Your task to perform on an android device: uninstall "NewsBreak: Local News & Alerts" Image 0: 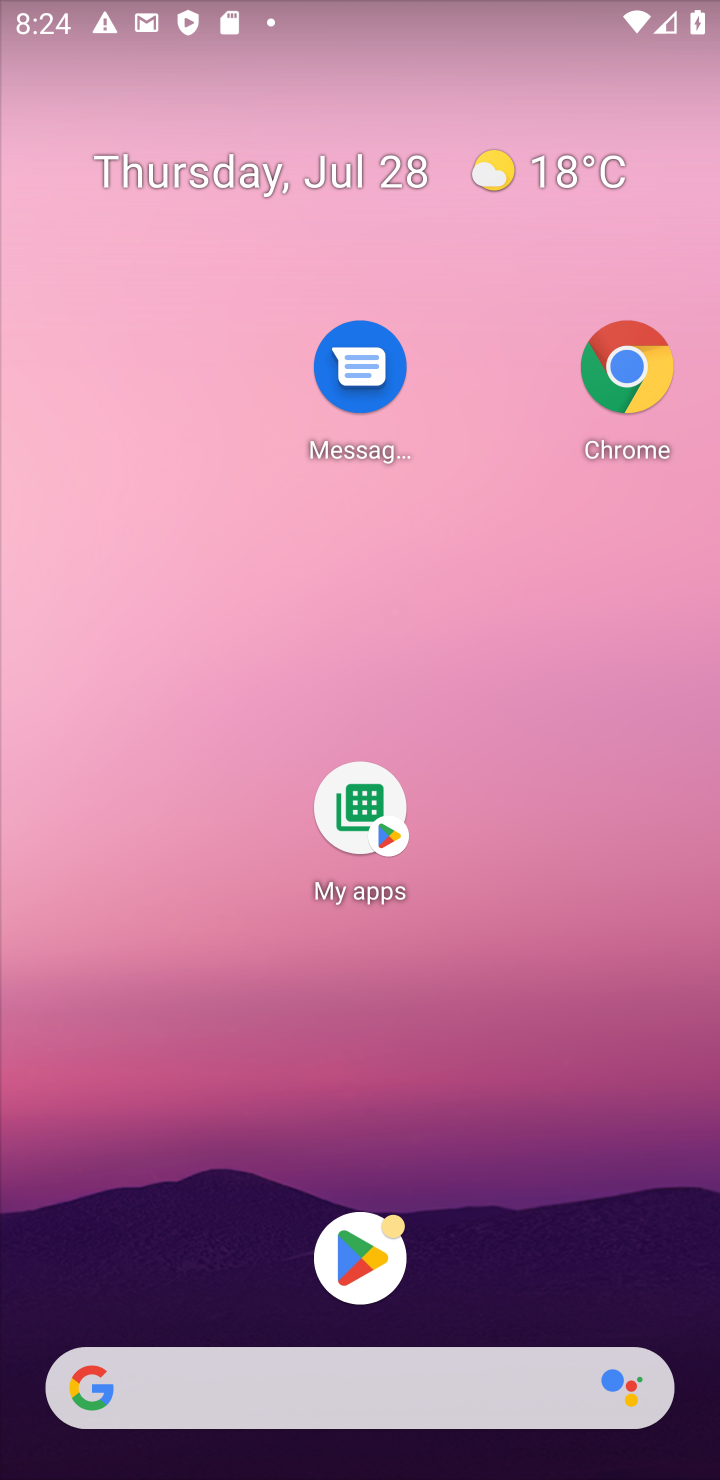
Step 0: drag from (432, 1468) to (629, 181)
Your task to perform on an android device: uninstall "NewsBreak: Local News & Alerts" Image 1: 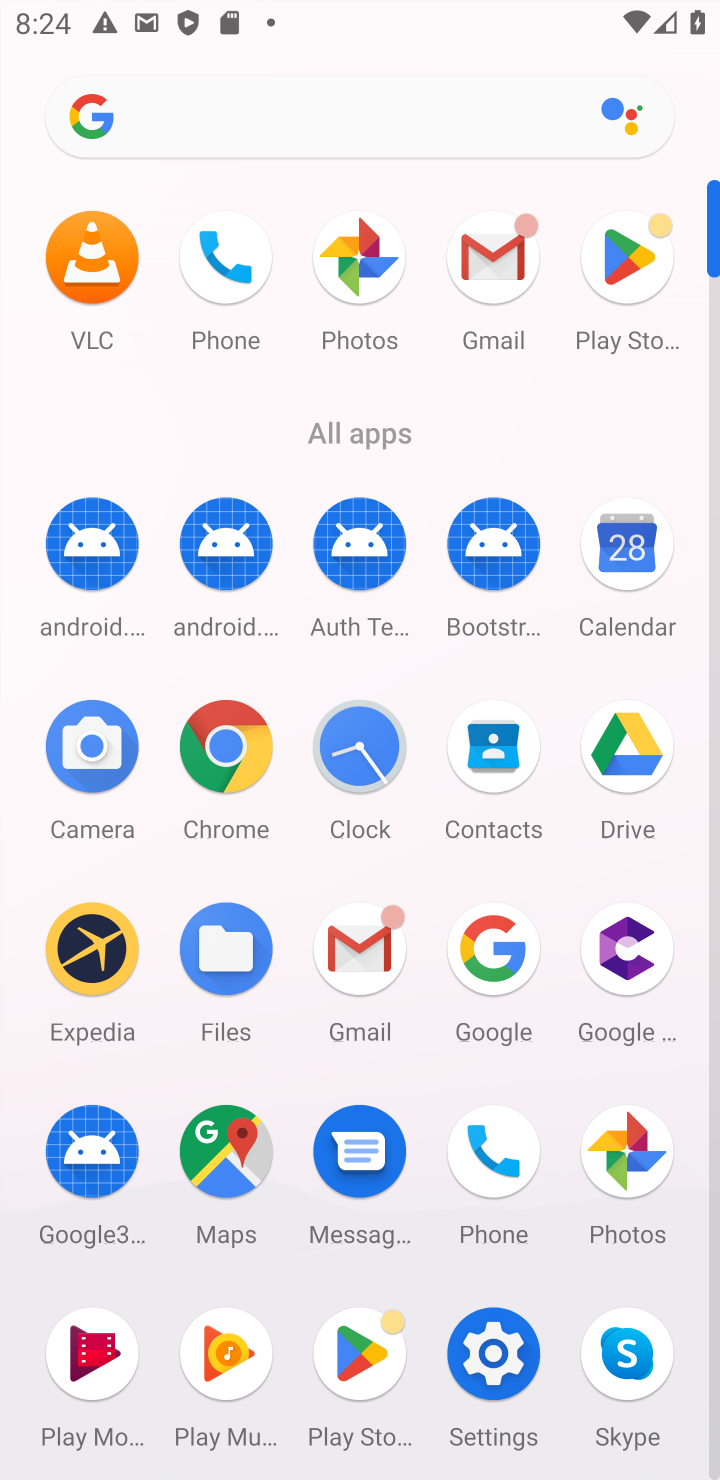
Step 1: click (619, 253)
Your task to perform on an android device: uninstall "NewsBreak: Local News & Alerts" Image 2: 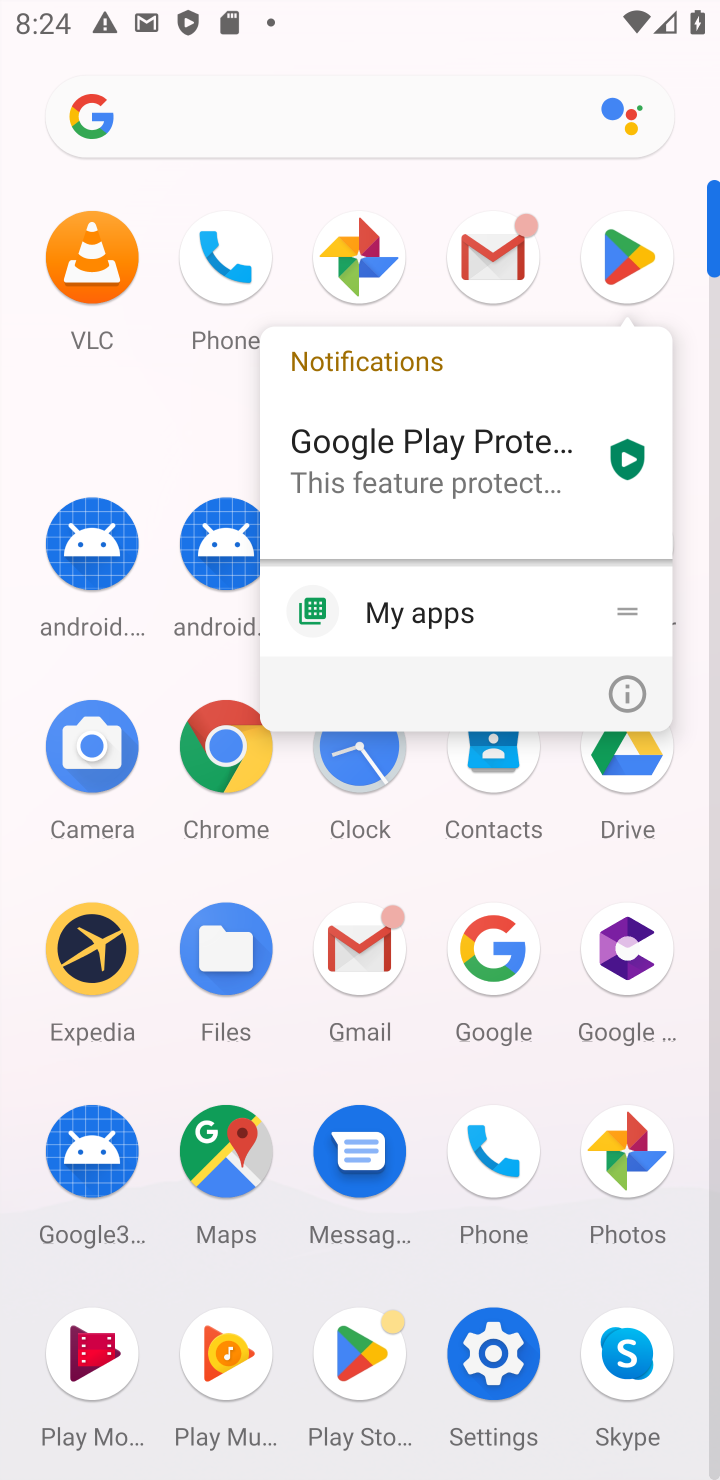
Step 2: click (619, 253)
Your task to perform on an android device: uninstall "NewsBreak: Local News & Alerts" Image 3: 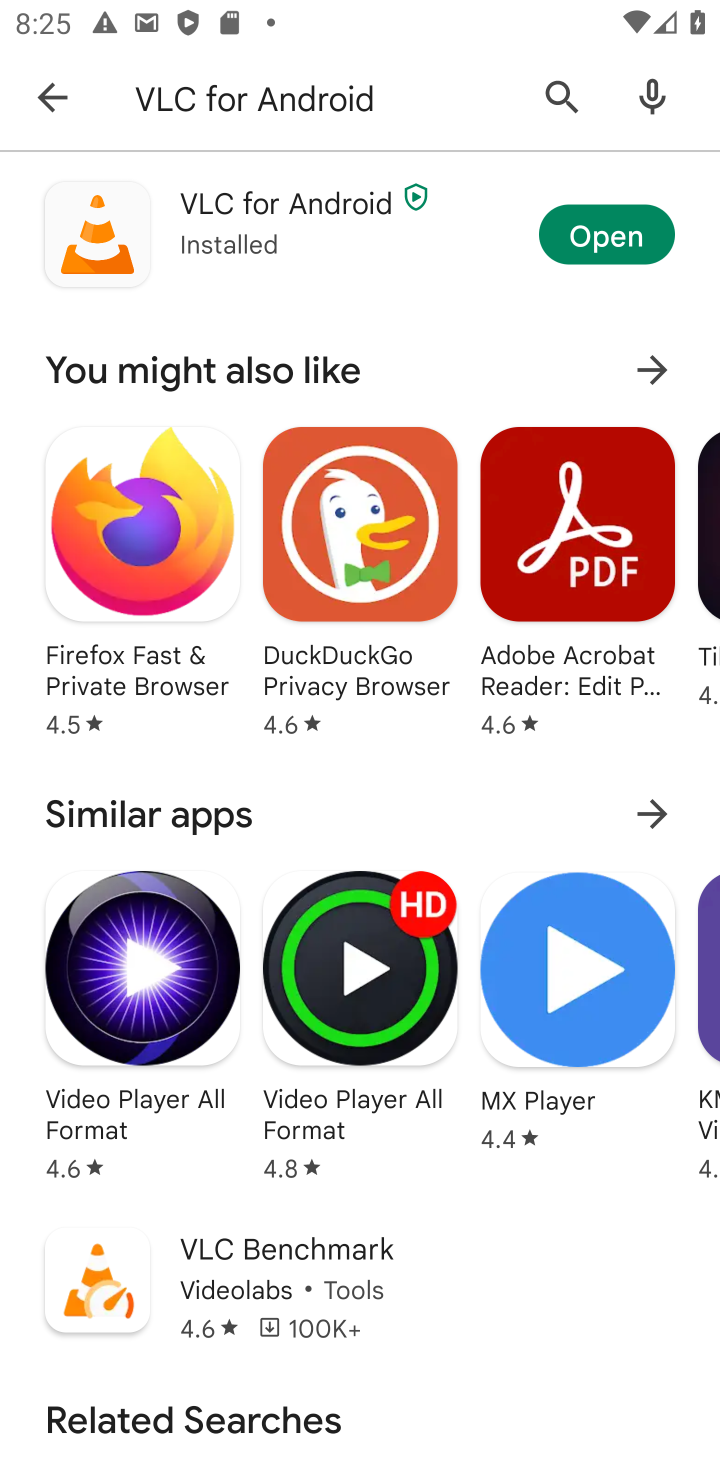
Step 3: click (542, 95)
Your task to perform on an android device: uninstall "NewsBreak: Local News & Alerts" Image 4: 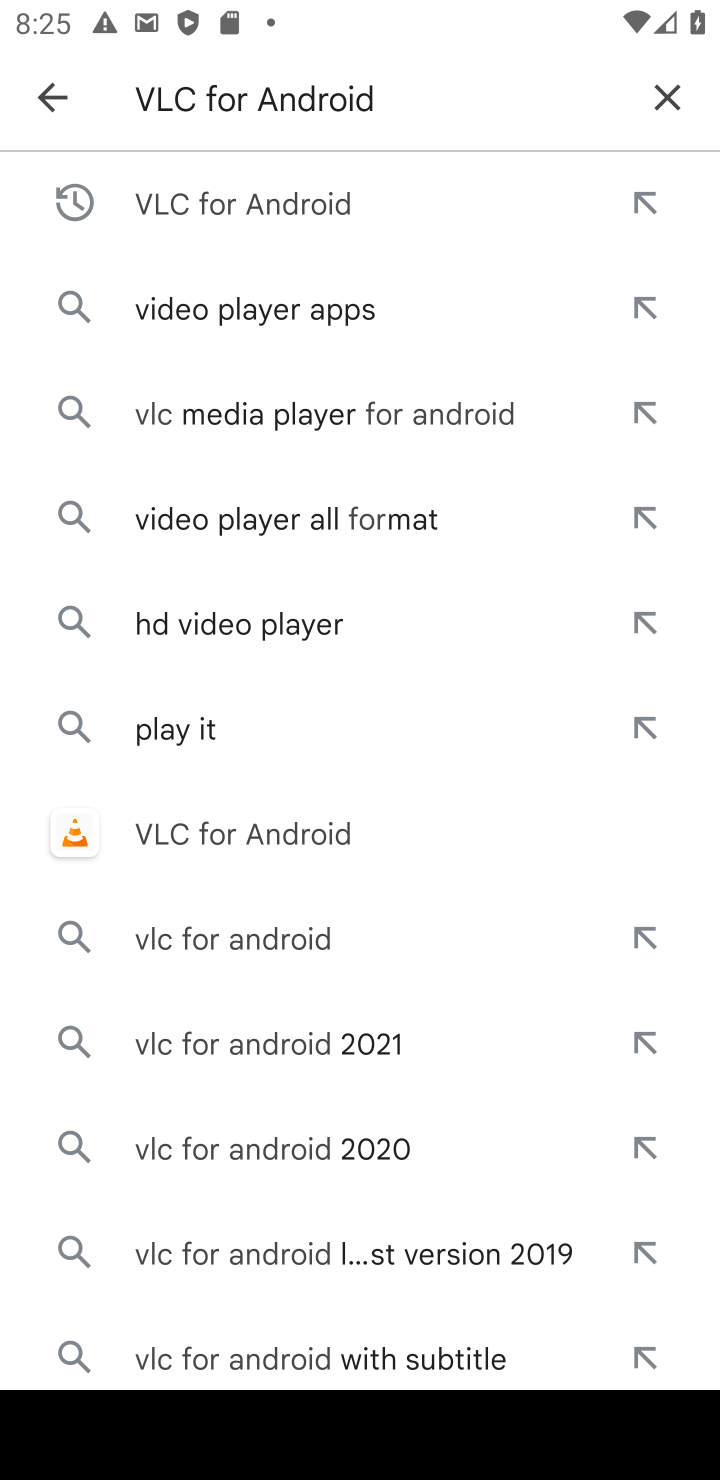
Step 4: click (667, 85)
Your task to perform on an android device: uninstall "NewsBreak: Local News & Alerts" Image 5: 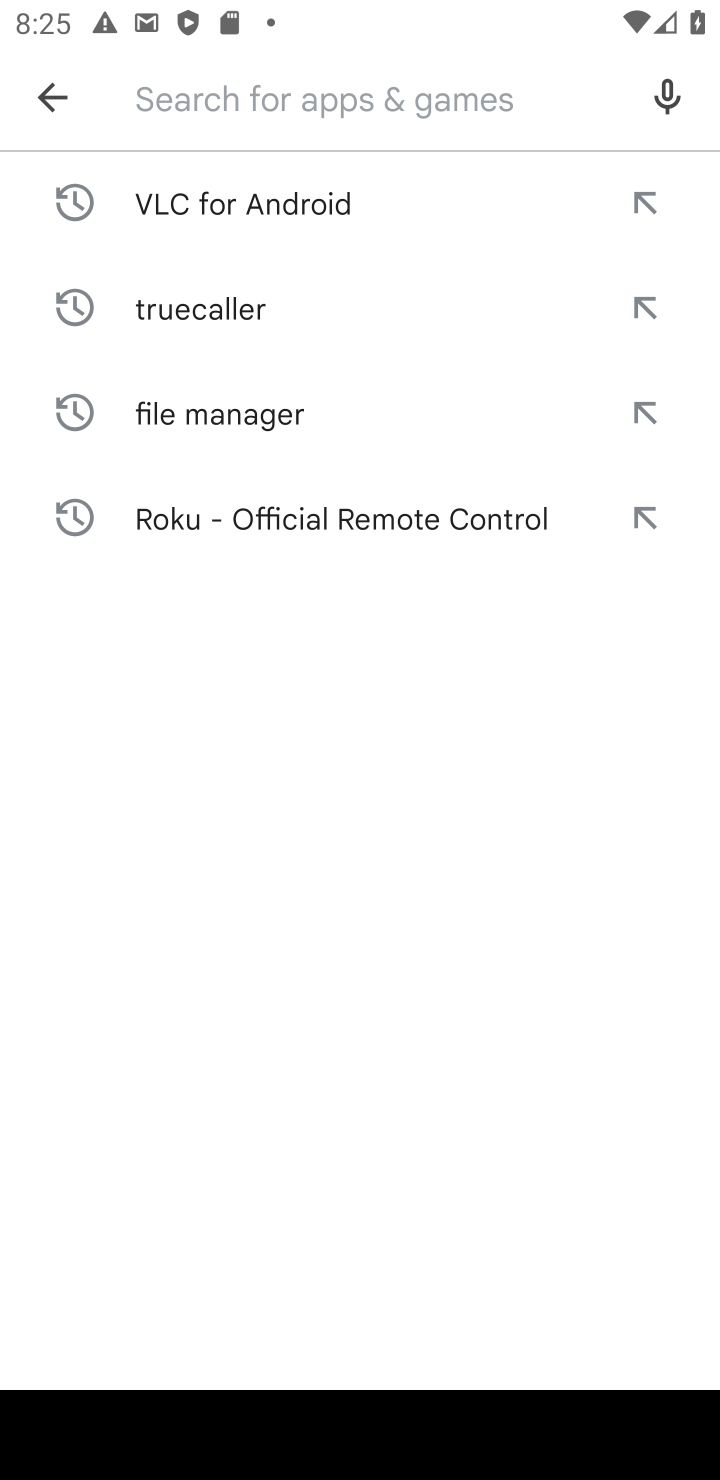
Step 5: type "NewsBreak: Local News & Alerts""
Your task to perform on an android device: uninstall "NewsBreak: Local News & Alerts" Image 6: 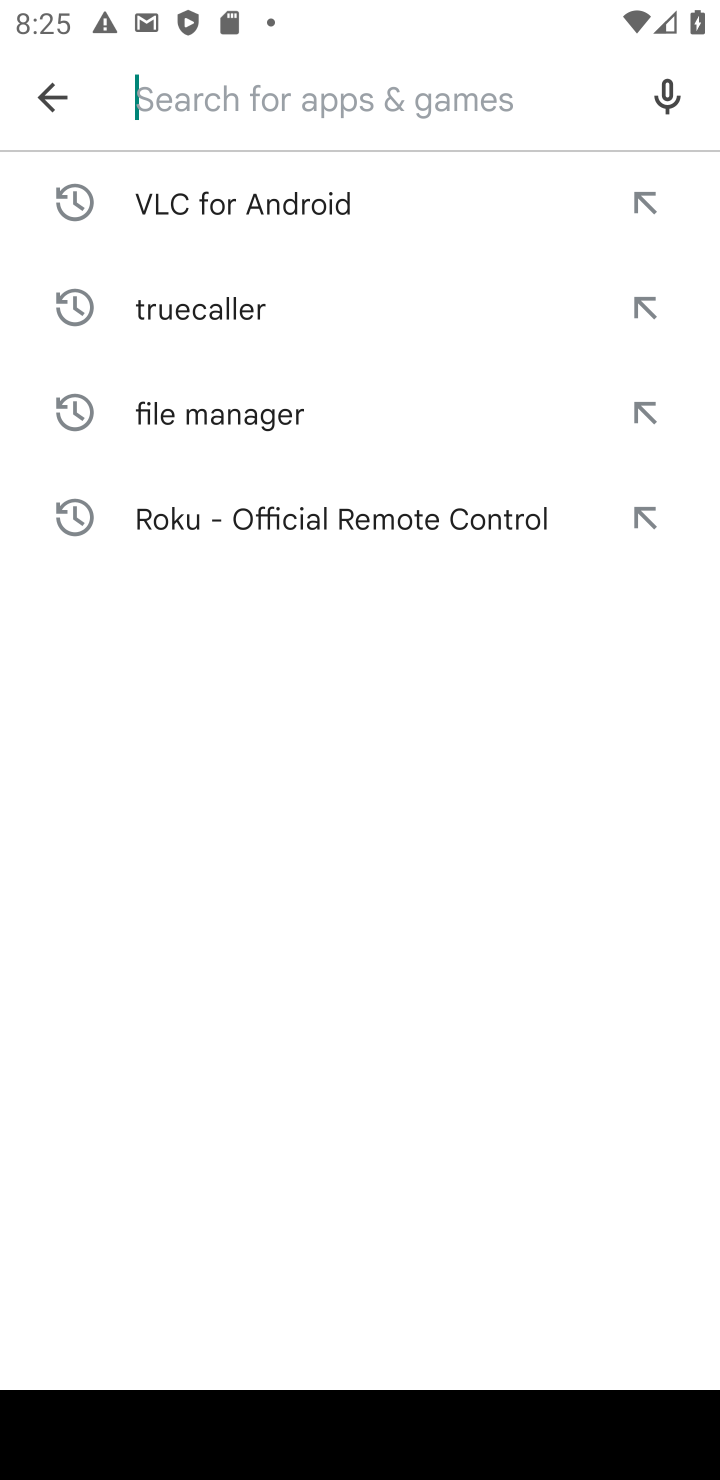
Step 6: press enter
Your task to perform on an android device: uninstall "NewsBreak: Local News & Alerts" Image 7: 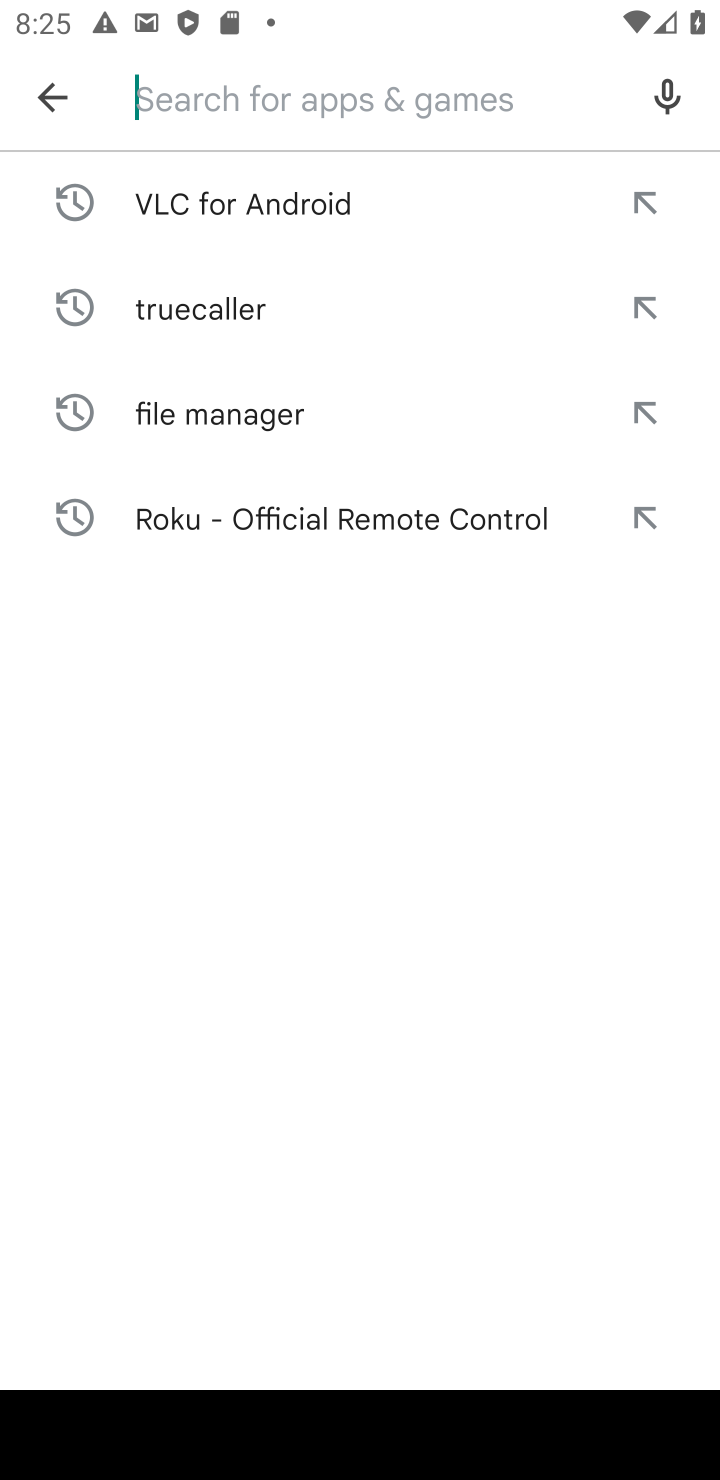
Step 7: type "NewsBreak: Local News & Alerts""
Your task to perform on an android device: uninstall "NewsBreak: Local News & Alerts" Image 8: 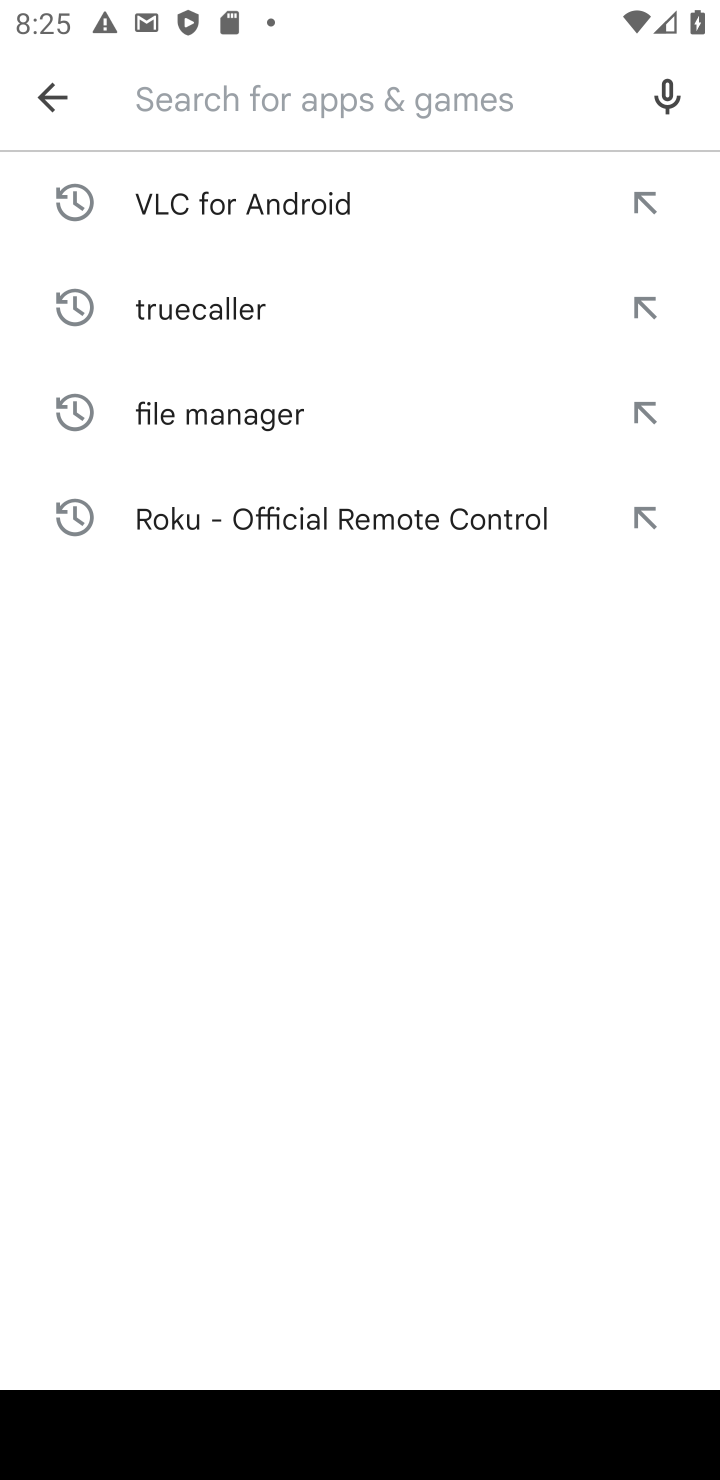
Step 8: press enter
Your task to perform on an android device: uninstall "NewsBreak: Local News & Alerts" Image 9: 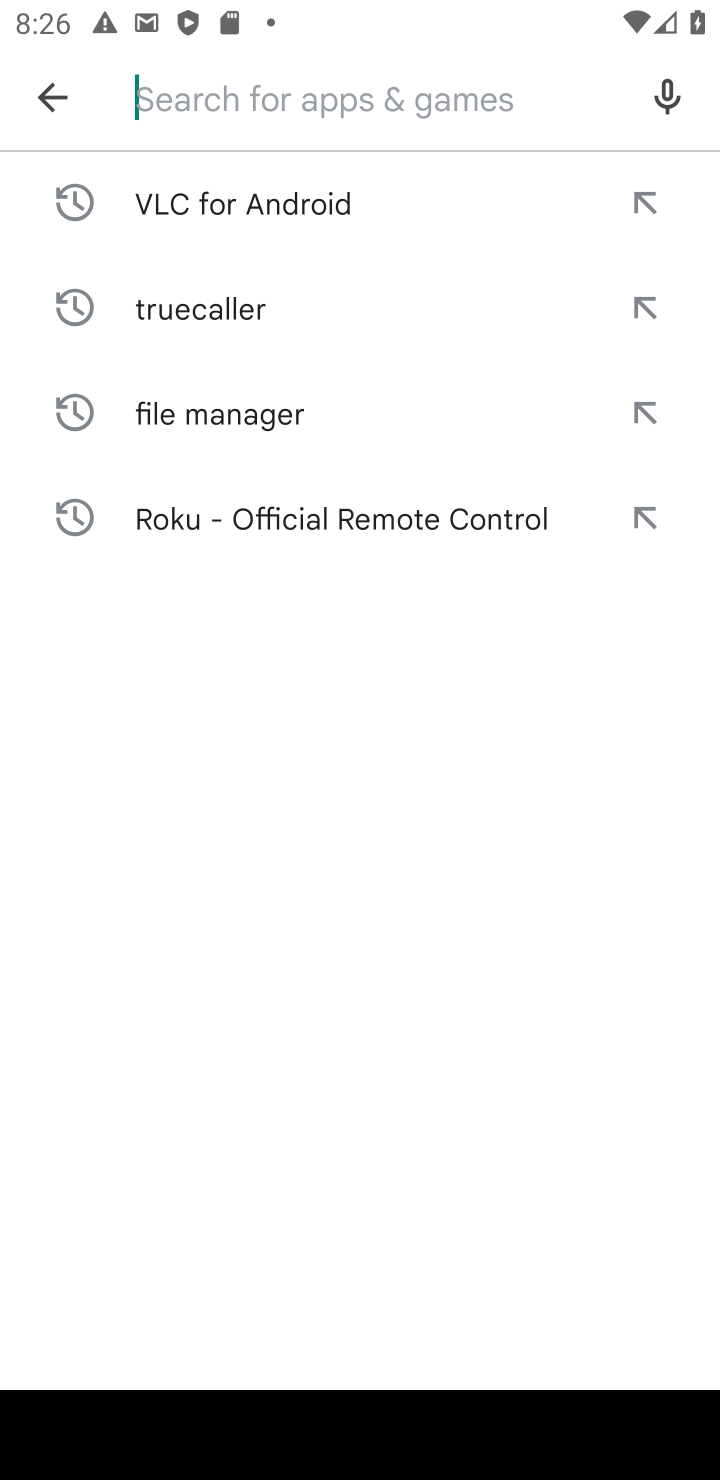
Step 9: click (187, 85)
Your task to perform on an android device: uninstall "NewsBreak: Local News & Alerts" Image 10: 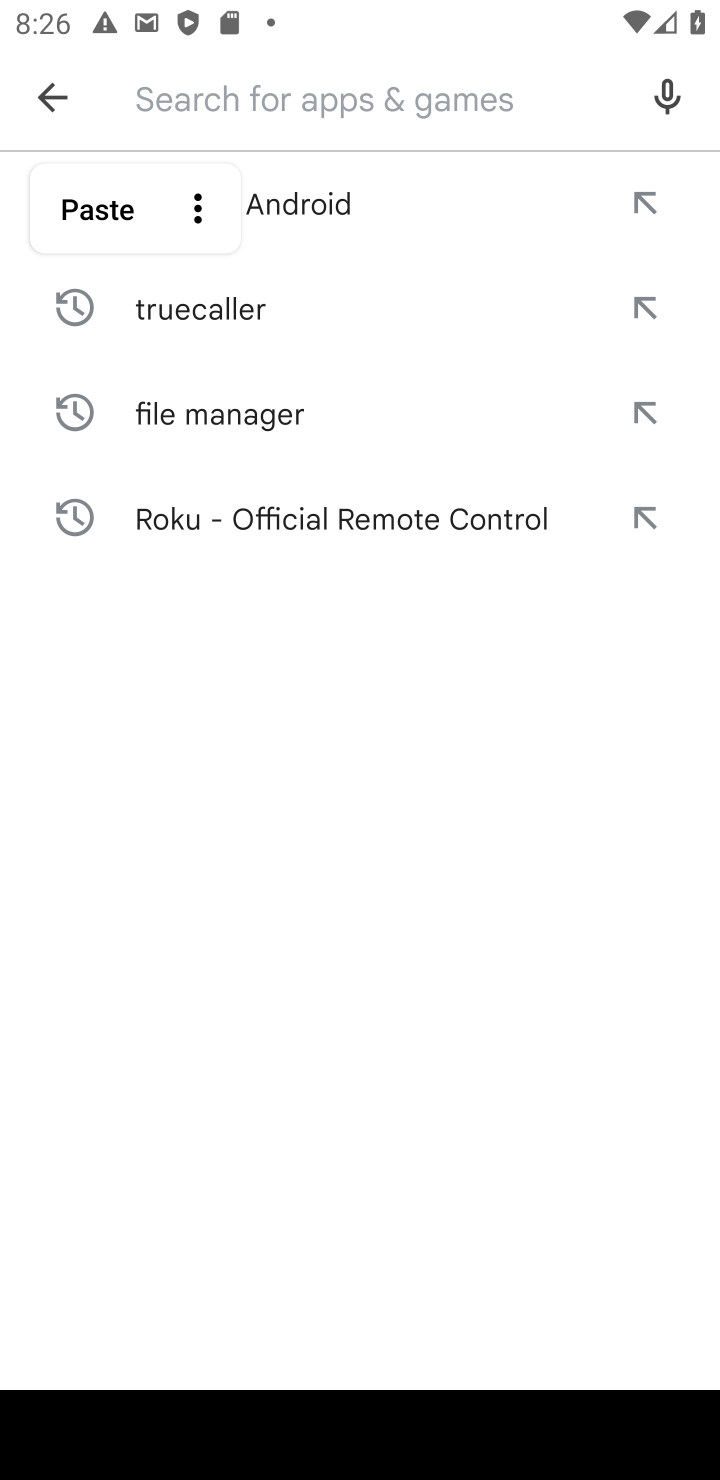
Step 10: type "NewsBreak: Local News & Alerts"
Your task to perform on an android device: uninstall "NewsBreak: Local News & Alerts" Image 11: 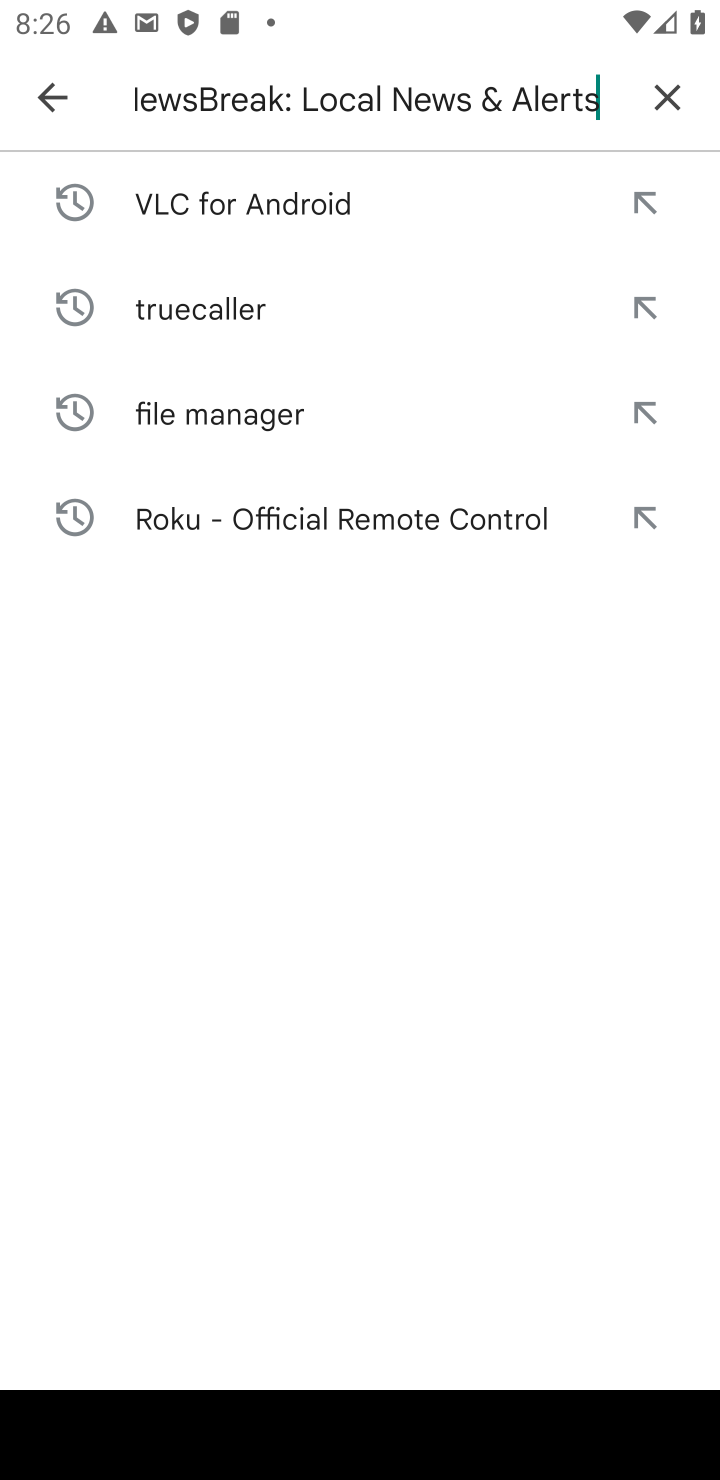
Step 11: press enter
Your task to perform on an android device: uninstall "NewsBreak: Local News & Alerts" Image 12: 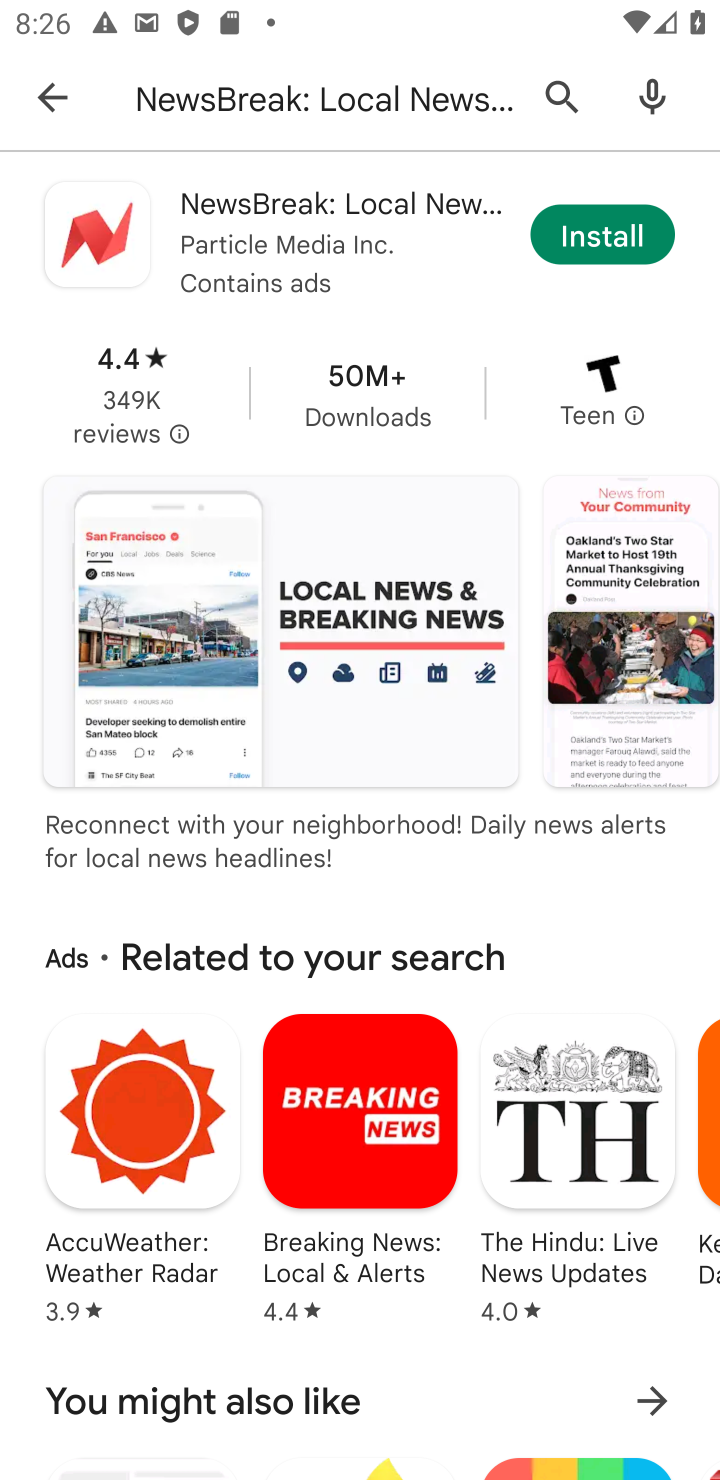
Step 12: task complete